Your task to perform on an android device: Open the web browser Image 0: 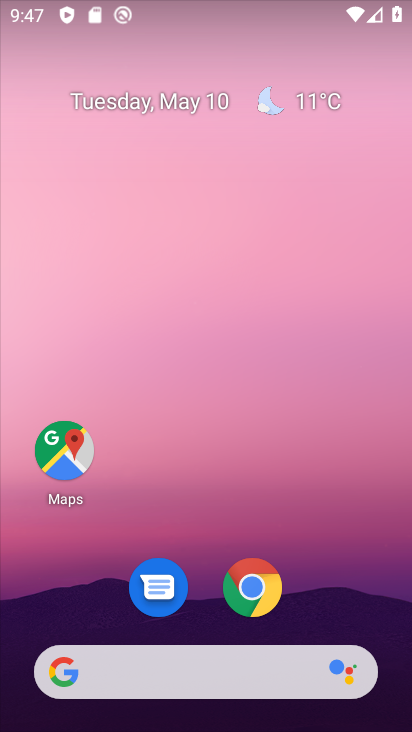
Step 0: drag from (224, 609) to (297, 0)
Your task to perform on an android device: Open the web browser Image 1: 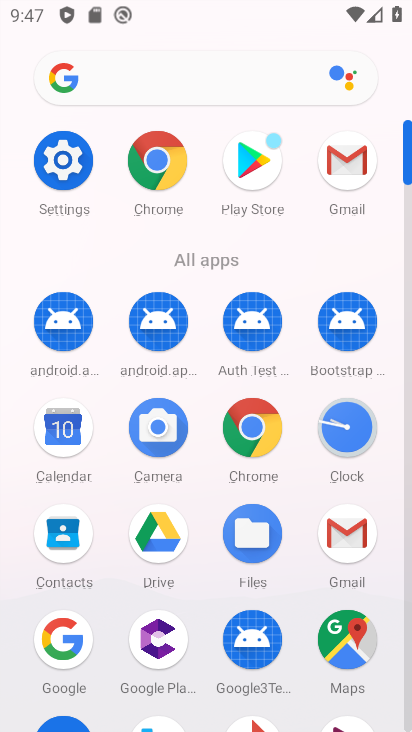
Step 1: click (164, 184)
Your task to perform on an android device: Open the web browser Image 2: 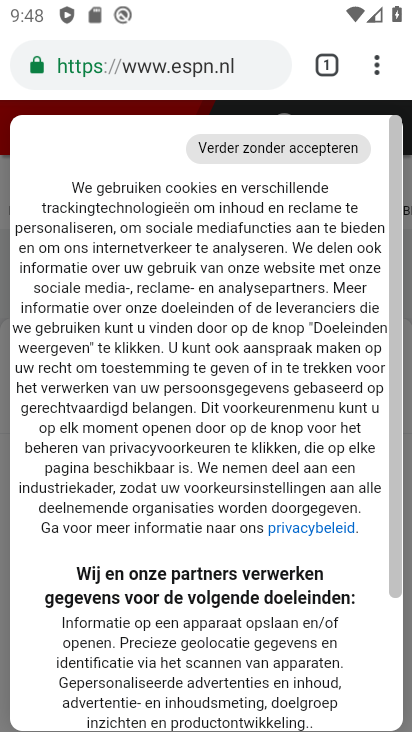
Step 2: task complete